Your task to perform on an android device: Open battery settings Image 0: 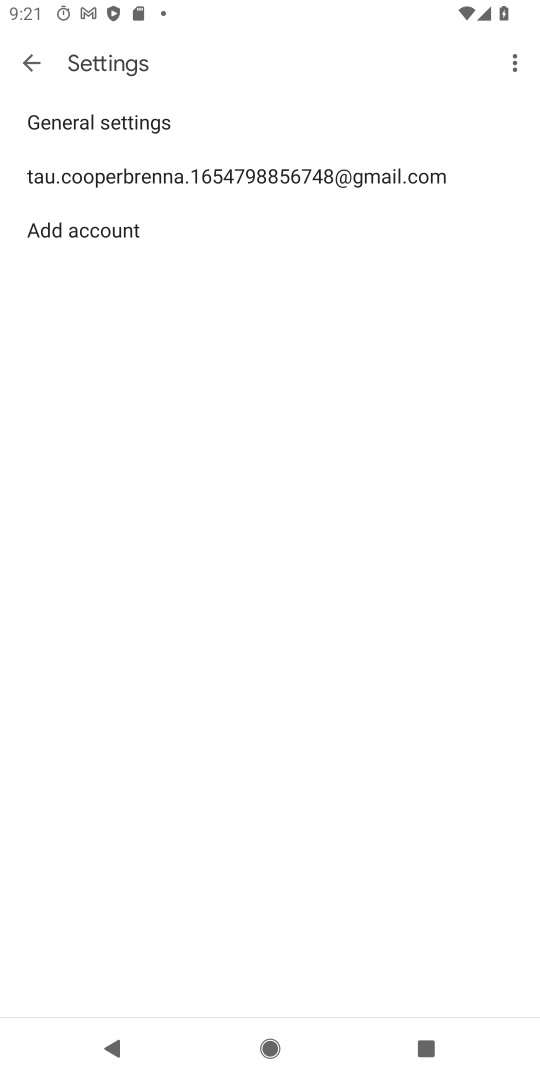
Step 0: press home button
Your task to perform on an android device: Open battery settings Image 1: 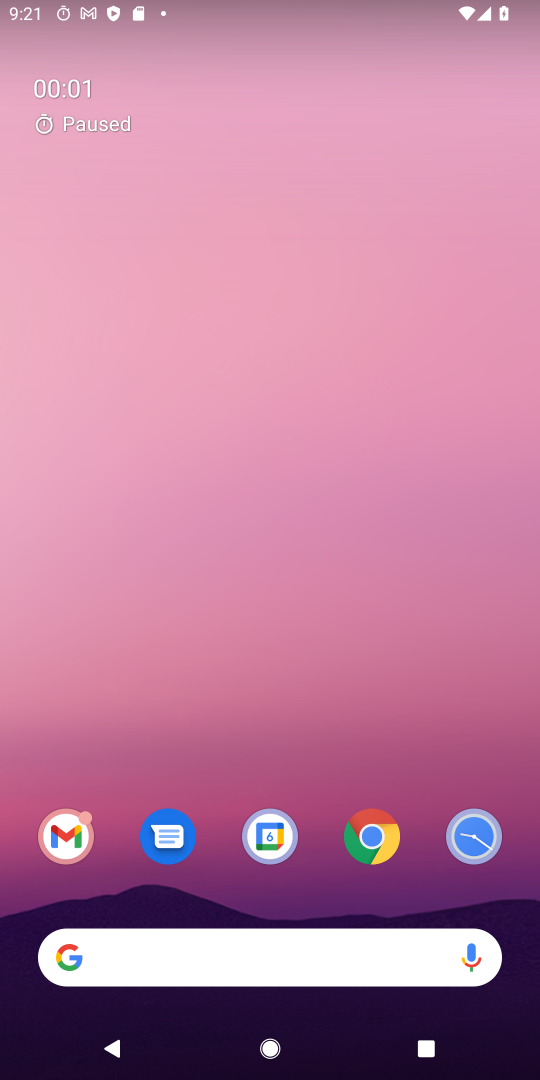
Step 1: drag from (466, 908) to (191, 84)
Your task to perform on an android device: Open battery settings Image 2: 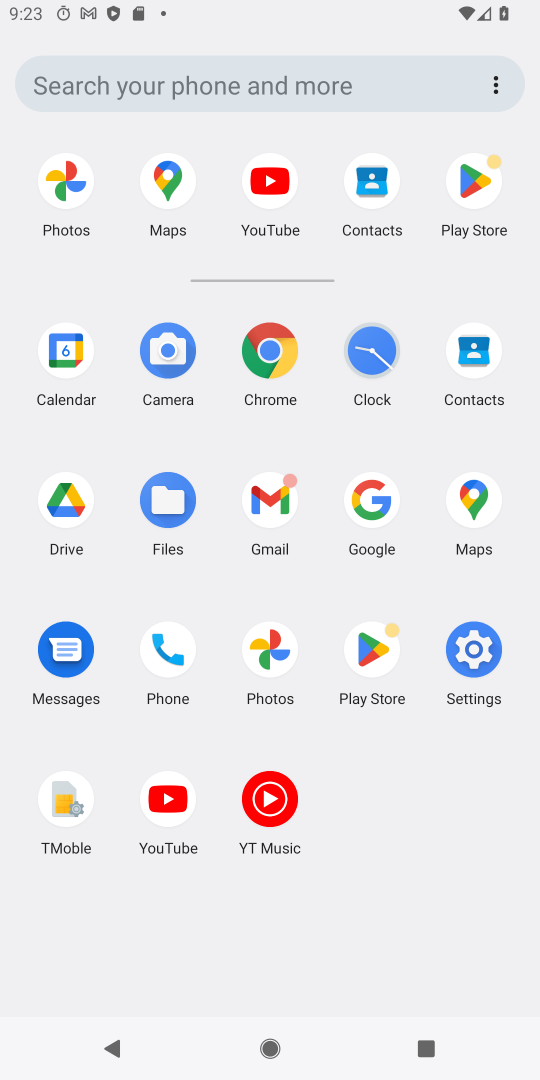
Step 2: click (460, 648)
Your task to perform on an android device: Open battery settings Image 3: 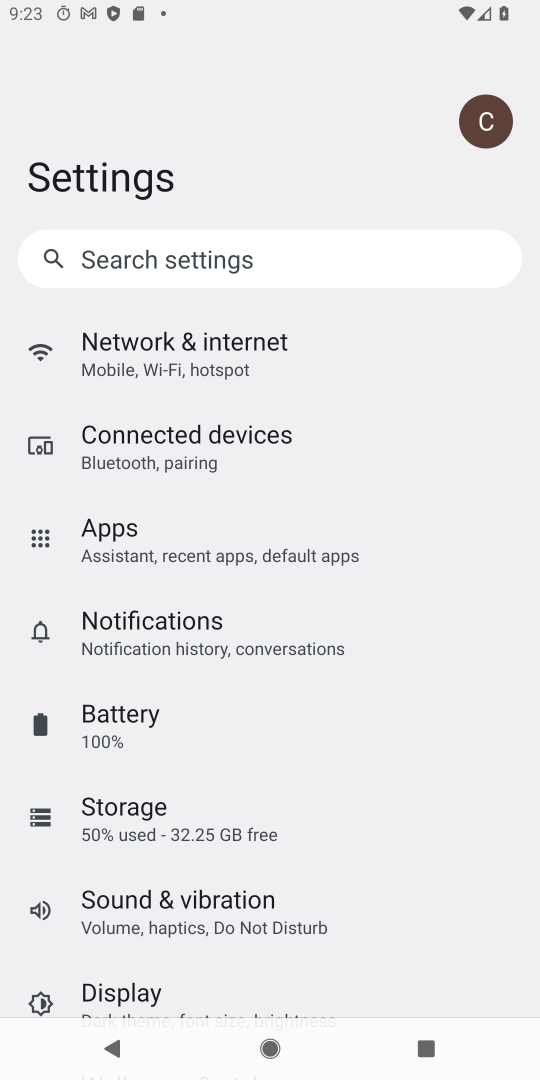
Step 3: click (127, 737)
Your task to perform on an android device: Open battery settings Image 4: 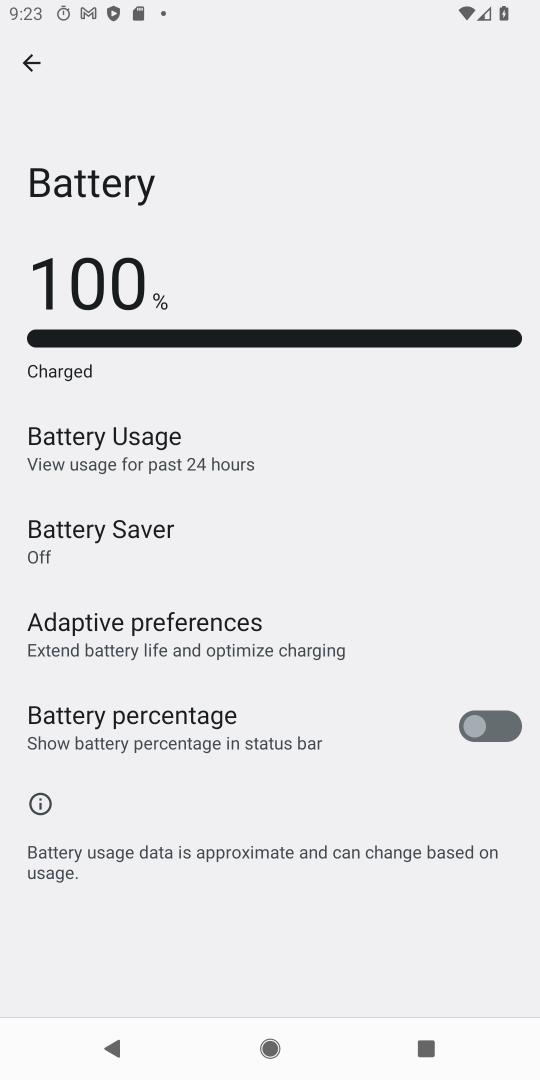
Step 4: task complete